Your task to perform on an android device: find photos in the google photos app Image 0: 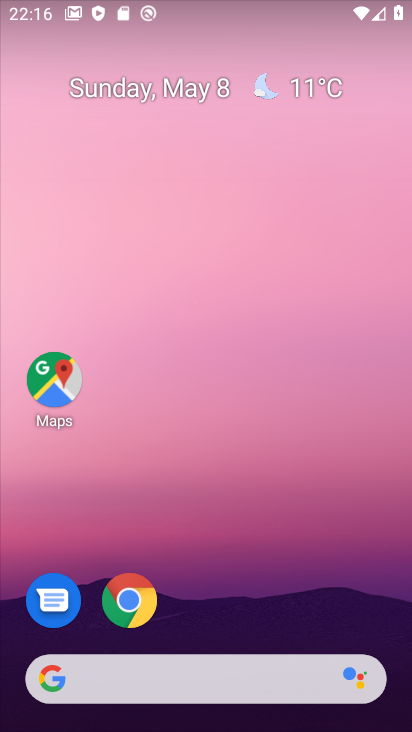
Step 0: drag from (193, 628) to (300, 0)
Your task to perform on an android device: find photos in the google photos app Image 1: 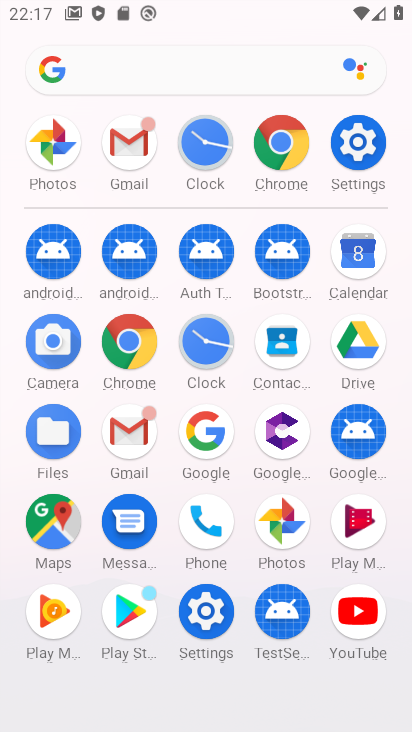
Step 1: click (59, 151)
Your task to perform on an android device: find photos in the google photos app Image 2: 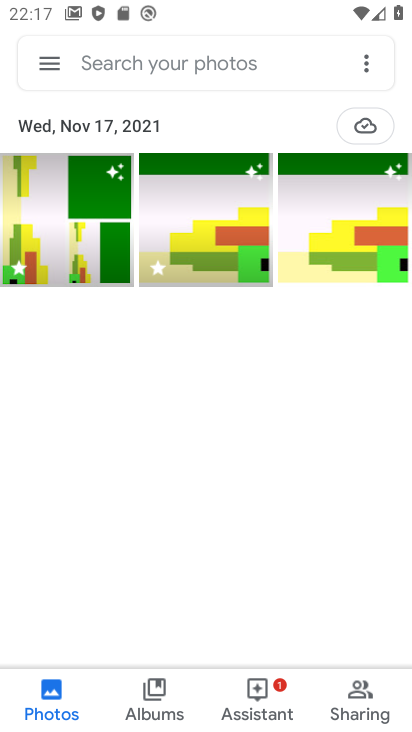
Step 2: task complete